Your task to perform on an android device: turn on sleep mode Image 0: 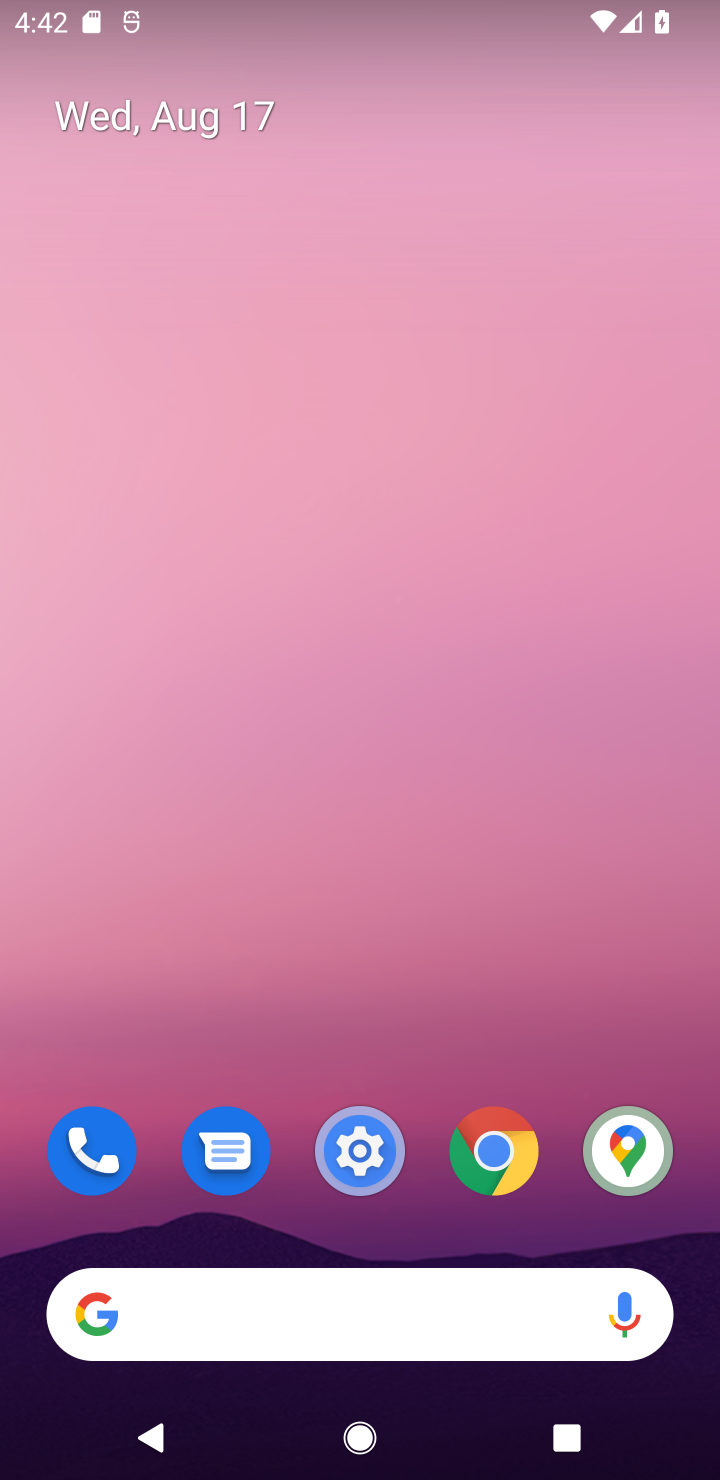
Step 0: drag from (317, 1217) to (336, 75)
Your task to perform on an android device: turn on sleep mode Image 1: 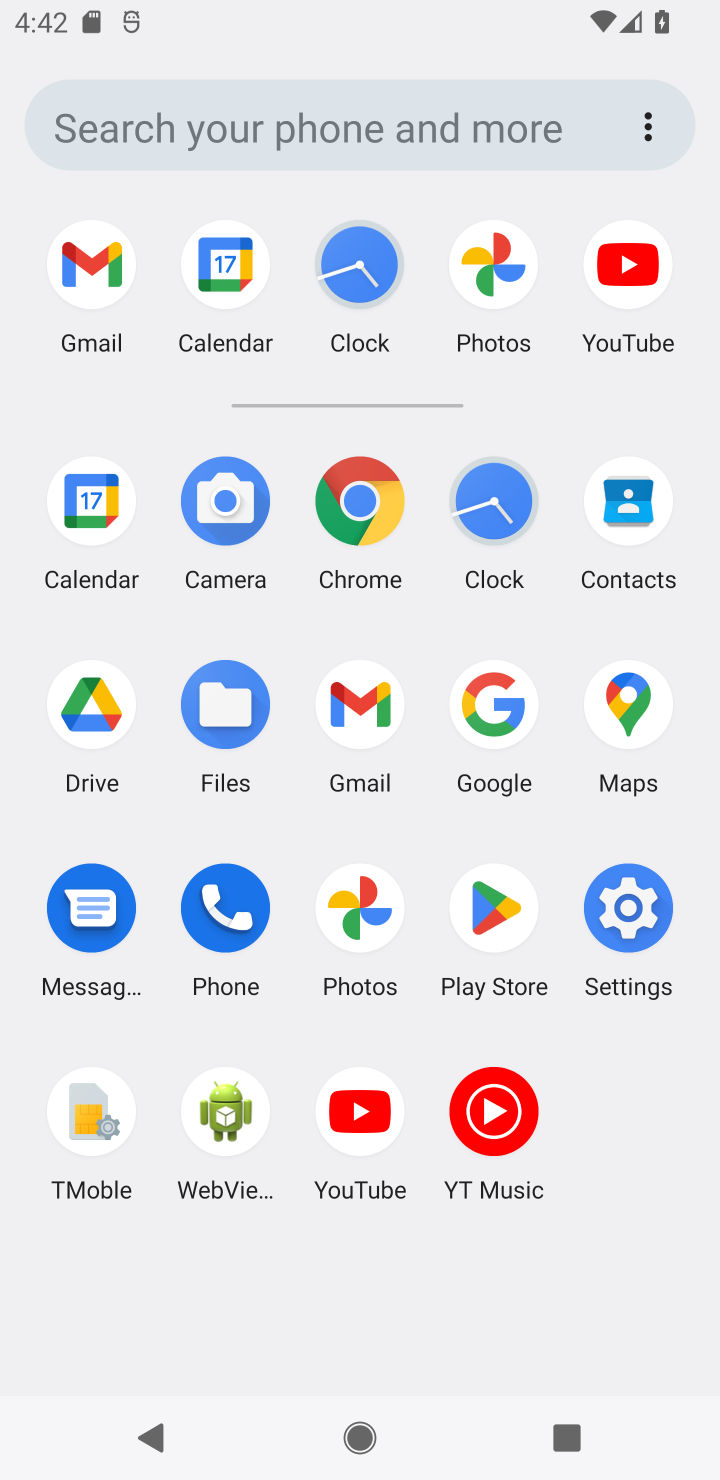
Step 1: click (609, 891)
Your task to perform on an android device: turn on sleep mode Image 2: 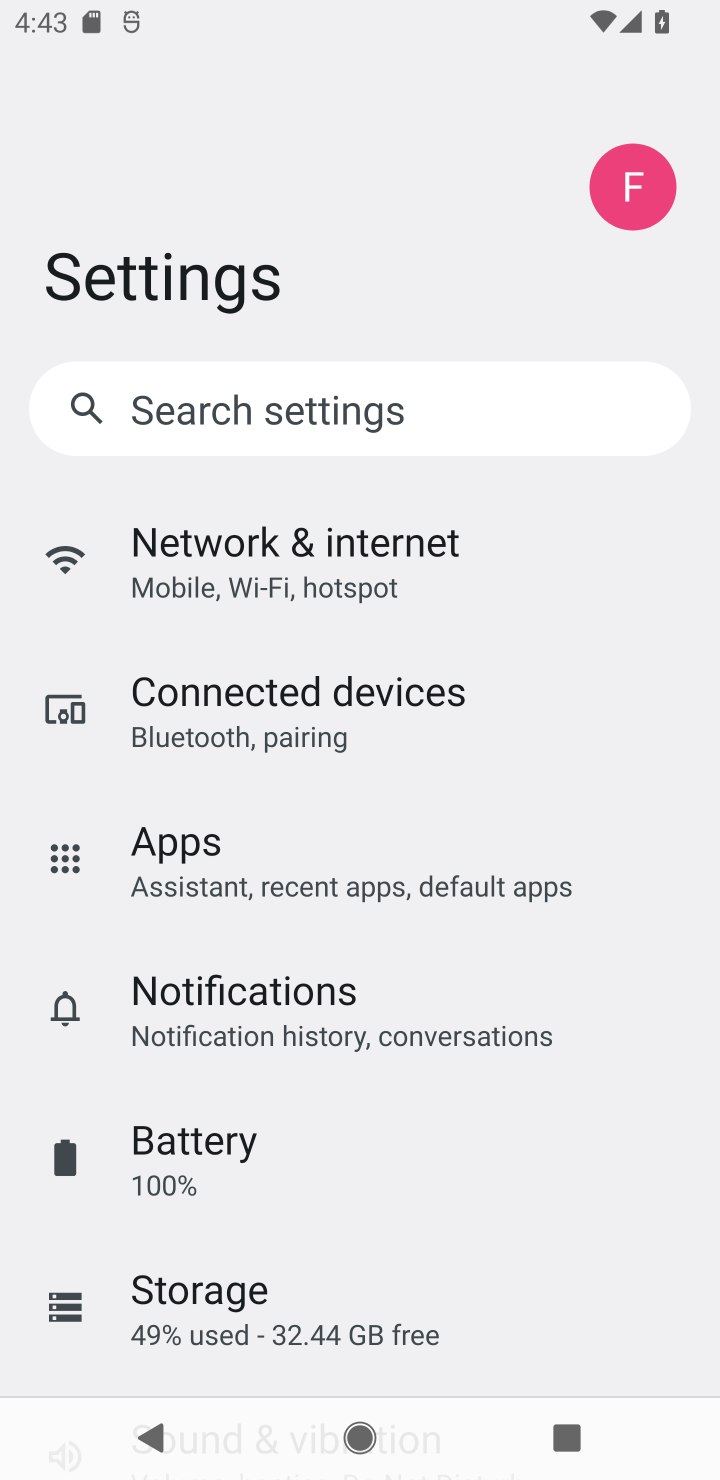
Step 2: task complete